Your task to perform on an android device: Open Youtube and go to the subscriptions tab Image 0: 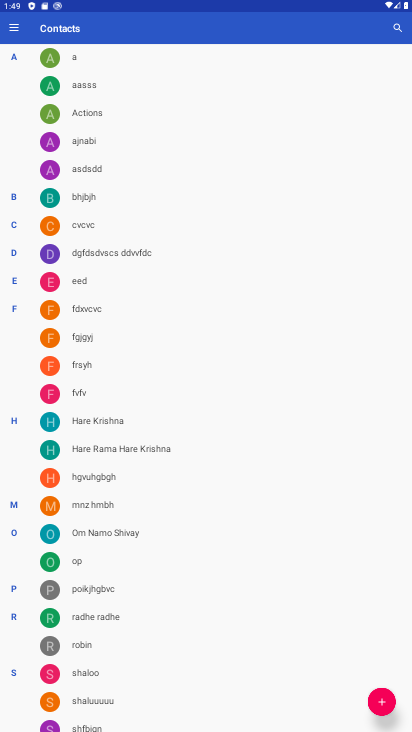
Step 0: press home button
Your task to perform on an android device: Open Youtube and go to the subscriptions tab Image 1: 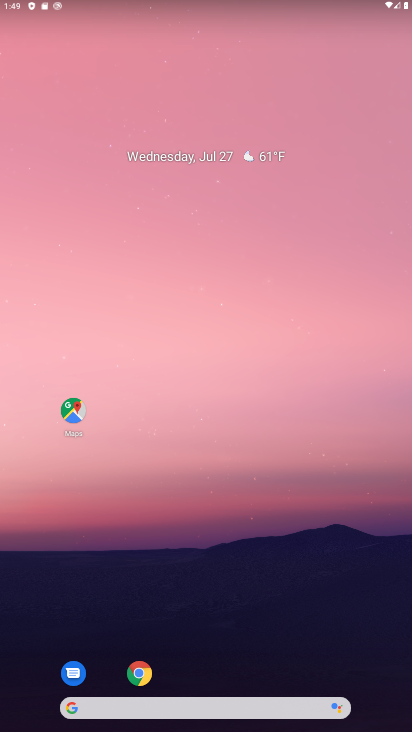
Step 1: drag from (219, 664) to (186, 192)
Your task to perform on an android device: Open Youtube and go to the subscriptions tab Image 2: 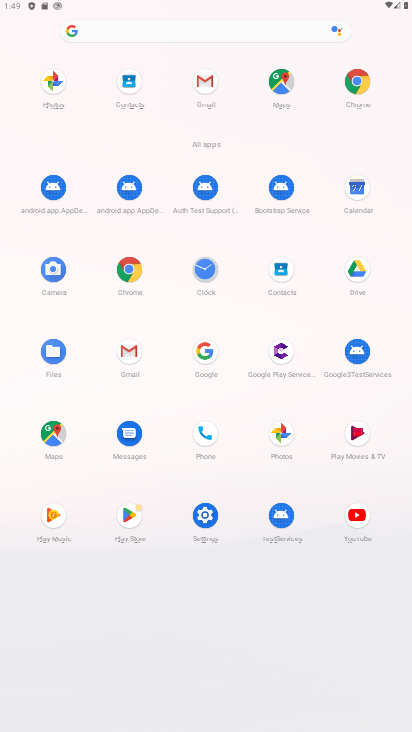
Step 2: click (346, 509)
Your task to perform on an android device: Open Youtube and go to the subscriptions tab Image 3: 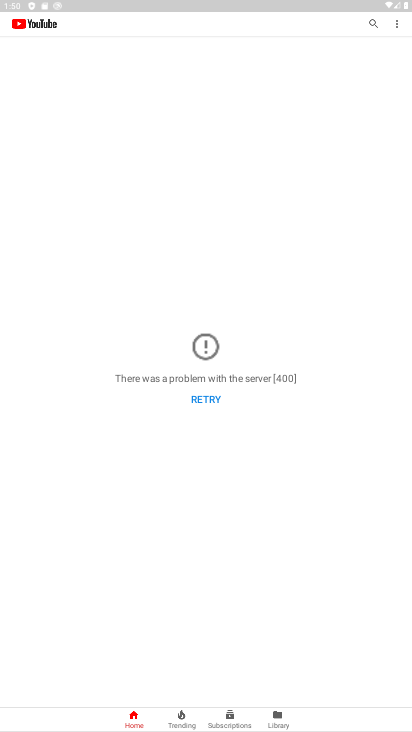
Step 3: click (232, 713)
Your task to perform on an android device: Open Youtube and go to the subscriptions tab Image 4: 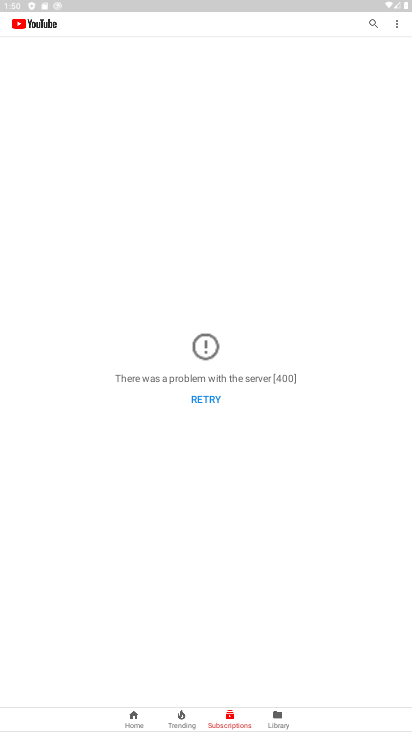
Step 4: task complete